Your task to perform on an android device: Open notification settings Image 0: 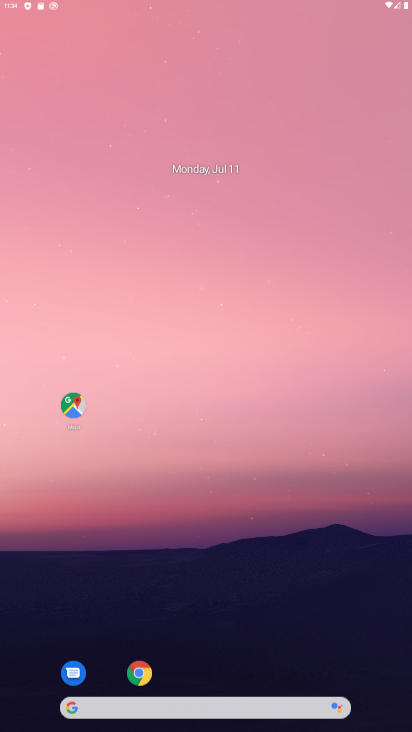
Step 0: press home button
Your task to perform on an android device: Open notification settings Image 1: 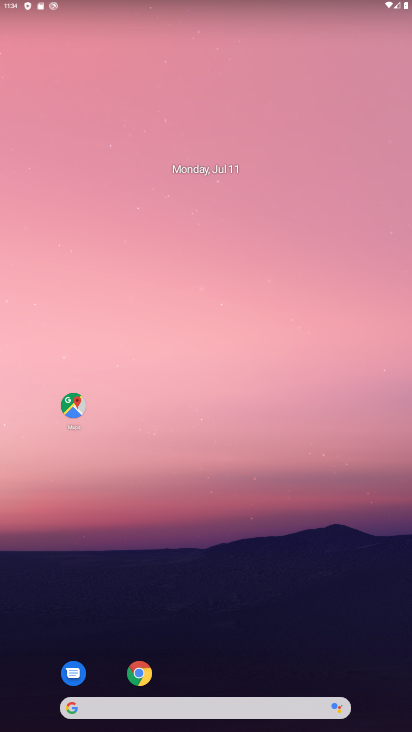
Step 1: drag from (224, 663) to (220, 30)
Your task to perform on an android device: Open notification settings Image 2: 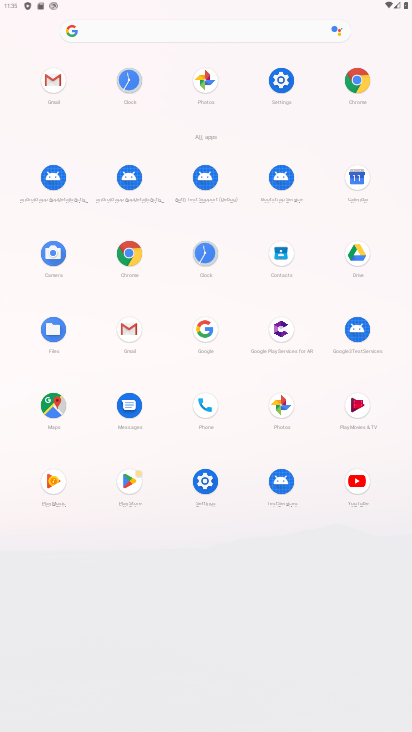
Step 2: click (280, 76)
Your task to perform on an android device: Open notification settings Image 3: 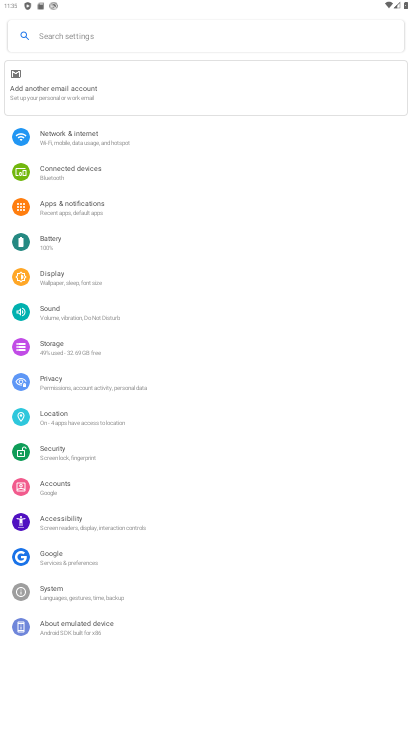
Step 3: click (93, 214)
Your task to perform on an android device: Open notification settings Image 4: 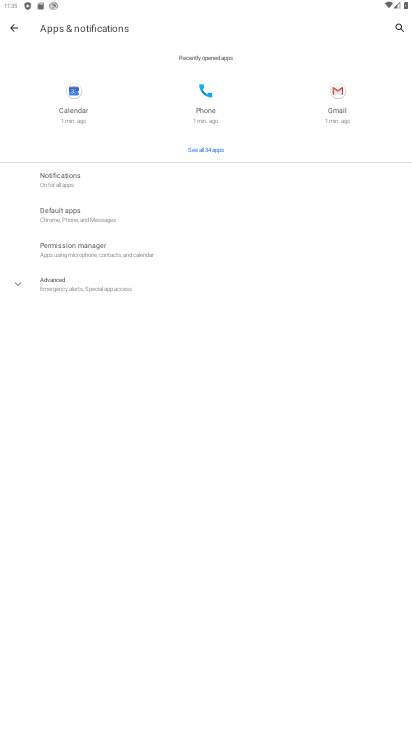
Step 4: click (92, 178)
Your task to perform on an android device: Open notification settings Image 5: 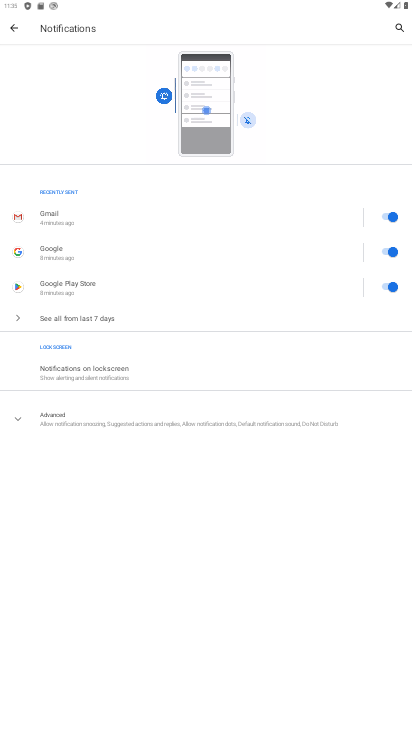
Step 5: click (29, 420)
Your task to perform on an android device: Open notification settings Image 6: 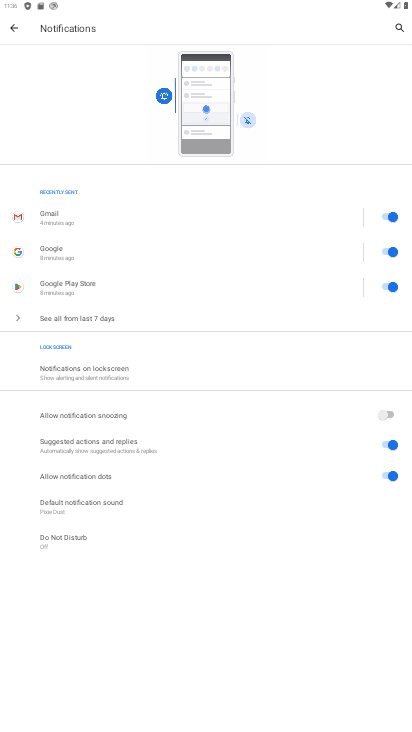
Step 6: task complete